Your task to perform on an android device: toggle notifications settings in the gmail app Image 0: 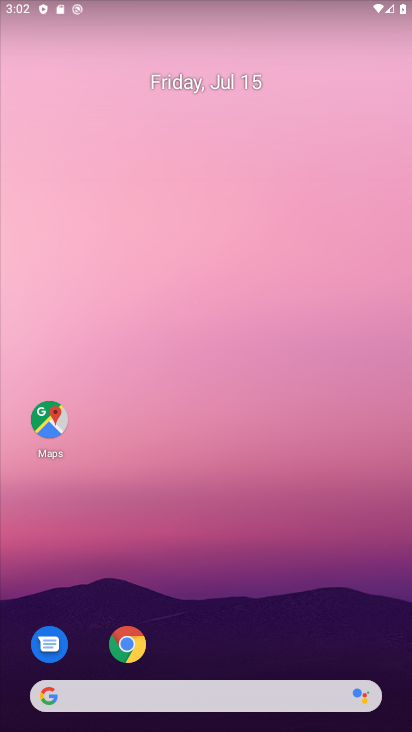
Step 0: drag from (248, 693) to (192, 49)
Your task to perform on an android device: toggle notifications settings in the gmail app Image 1: 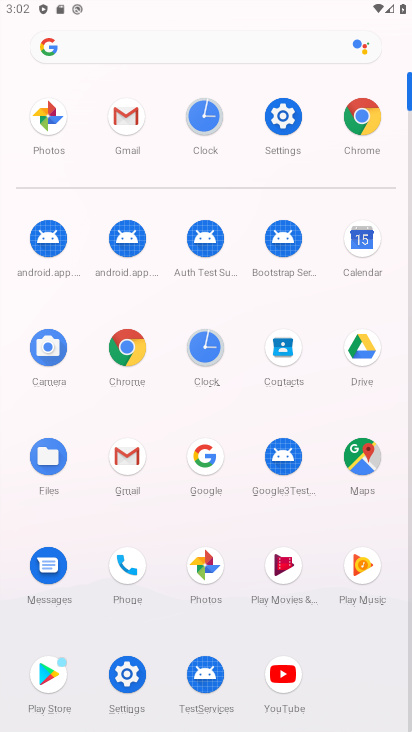
Step 1: click (129, 454)
Your task to perform on an android device: toggle notifications settings in the gmail app Image 2: 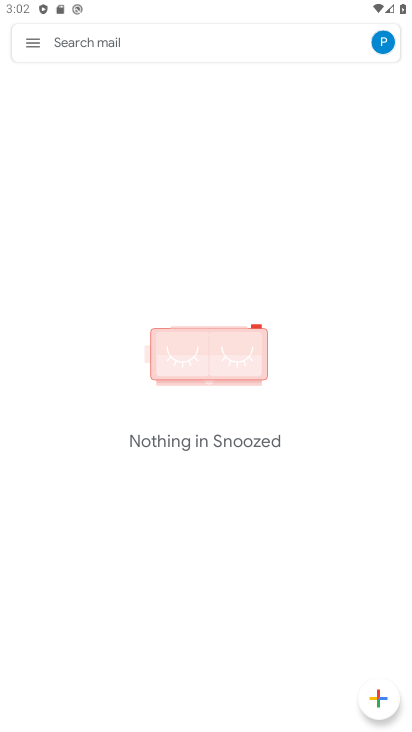
Step 2: click (40, 39)
Your task to perform on an android device: toggle notifications settings in the gmail app Image 3: 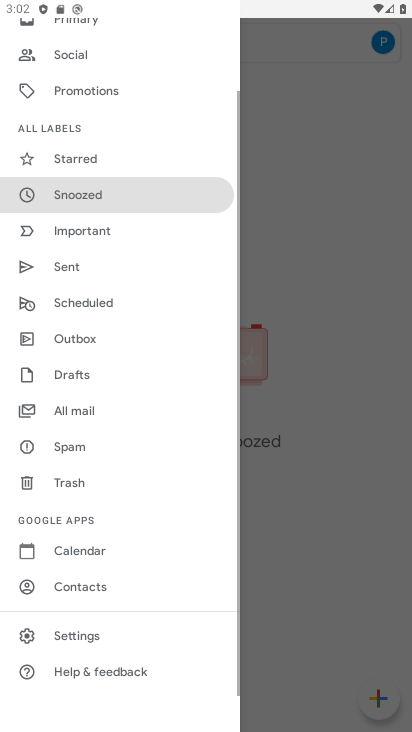
Step 3: click (109, 637)
Your task to perform on an android device: toggle notifications settings in the gmail app Image 4: 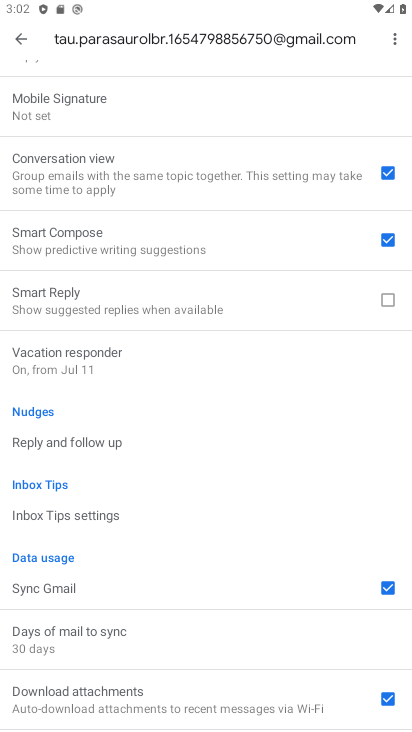
Step 4: drag from (157, 202) to (132, 625)
Your task to perform on an android device: toggle notifications settings in the gmail app Image 5: 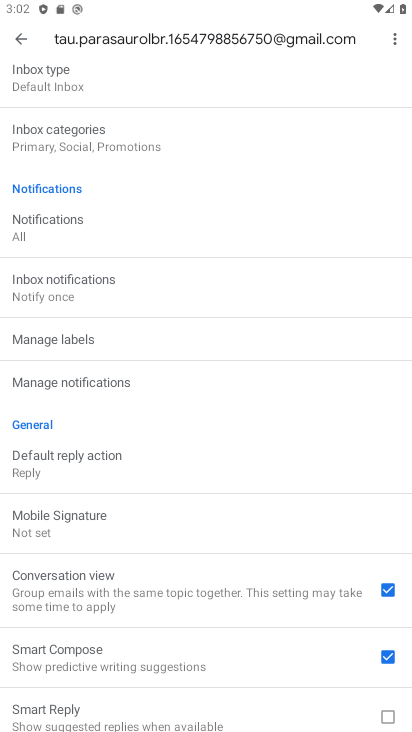
Step 5: click (97, 379)
Your task to perform on an android device: toggle notifications settings in the gmail app Image 6: 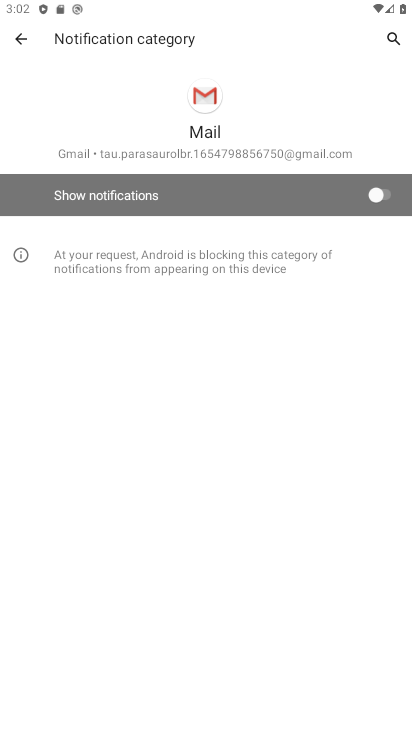
Step 6: click (389, 194)
Your task to perform on an android device: toggle notifications settings in the gmail app Image 7: 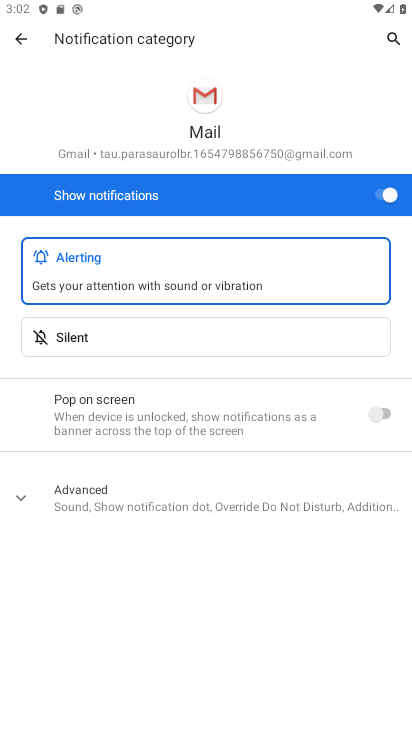
Step 7: task complete